Your task to perform on an android device: open app "Messages" (install if not already installed) Image 0: 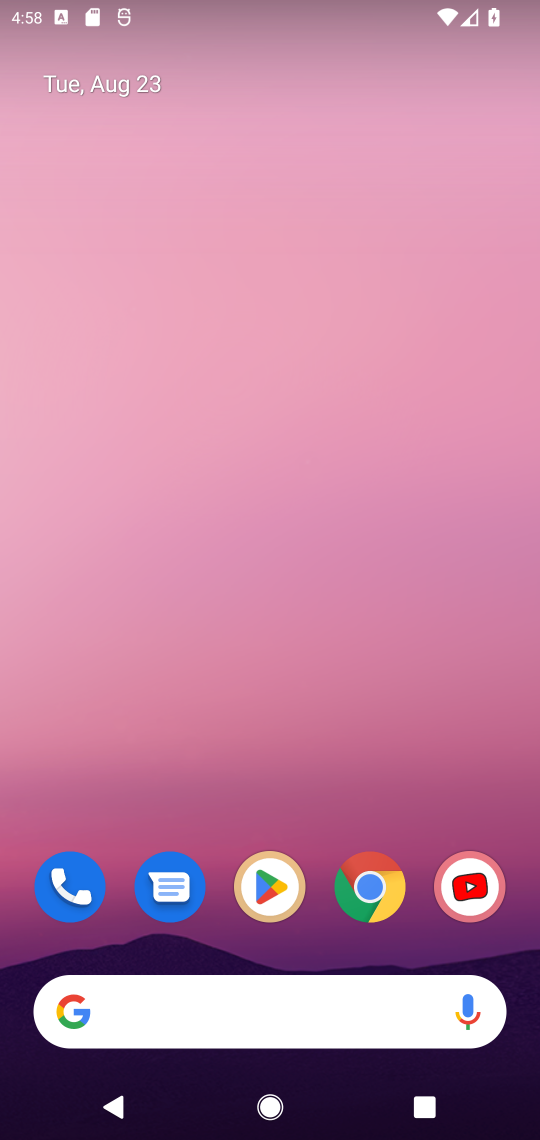
Step 0: click (268, 893)
Your task to perform on an android device: open app "Messages" (install if not already installed) Image 1: 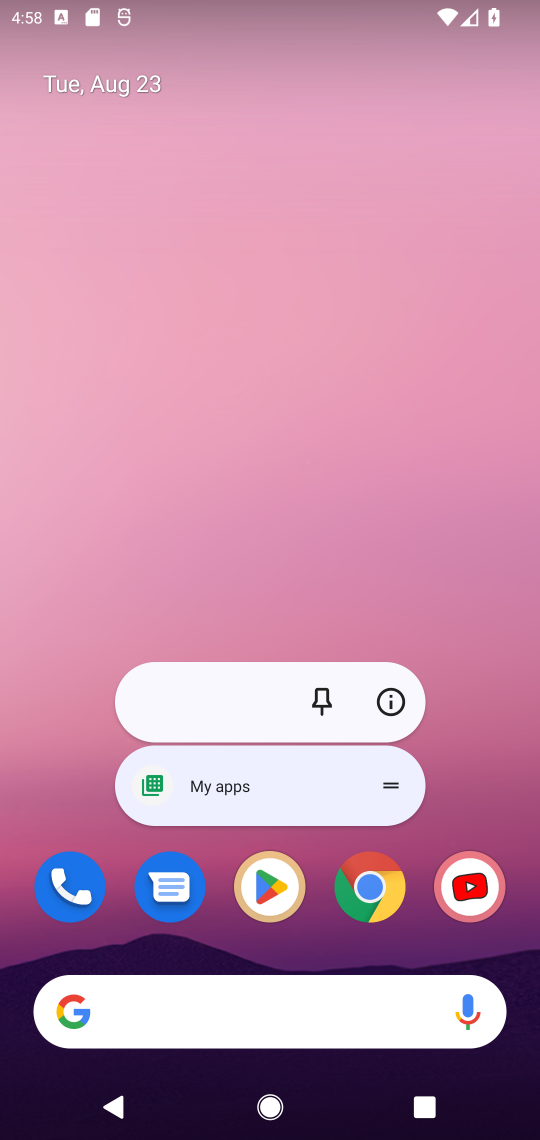
Step 1: click (252, 893)
Your task to perform on an android device: open app "Messages" (install if not already installed) Image 2: 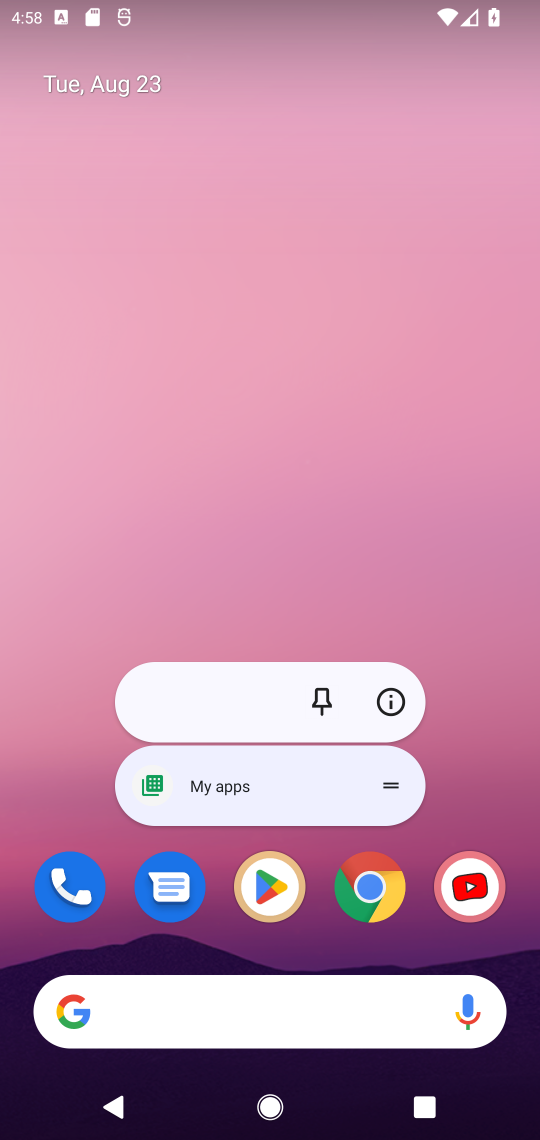
Step 2: click (271, 893)
Your task to perform on an android device: open app "Messages" (install if not already installed) Image 3: 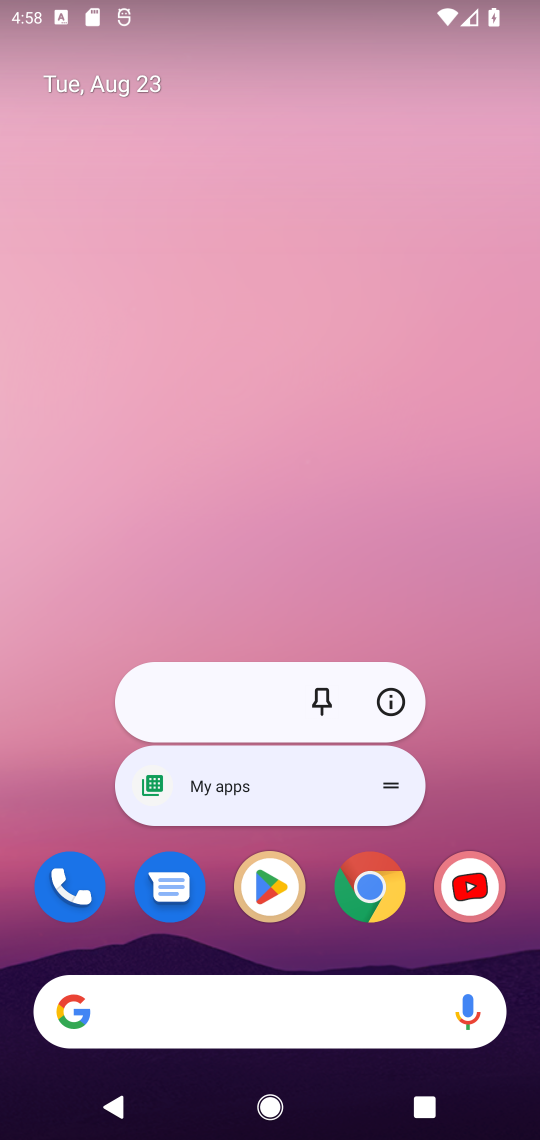
Step 3: click (276, 893)
Your task to perform on an android device: open app "Messages" (install if not already installed) Image 4: 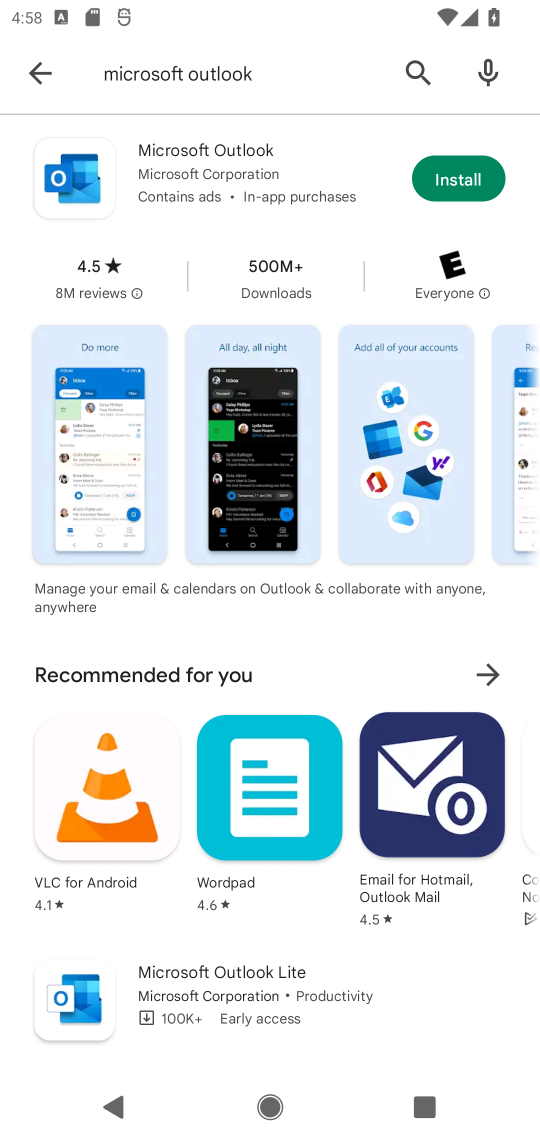
Step 4: click (35, 71)
Your task to perform on an android device: open app "Messages" (install if not already installed) Image 5: 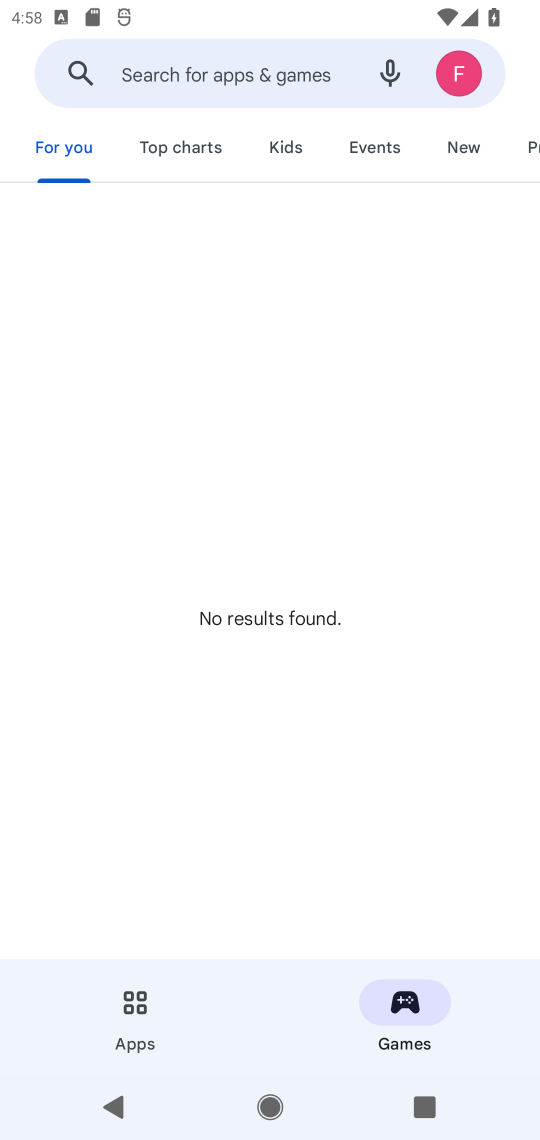
Step 5: click (189, 71)
Your task to perform on an android device: open app "Messages" (install if not already installed) Image 6: 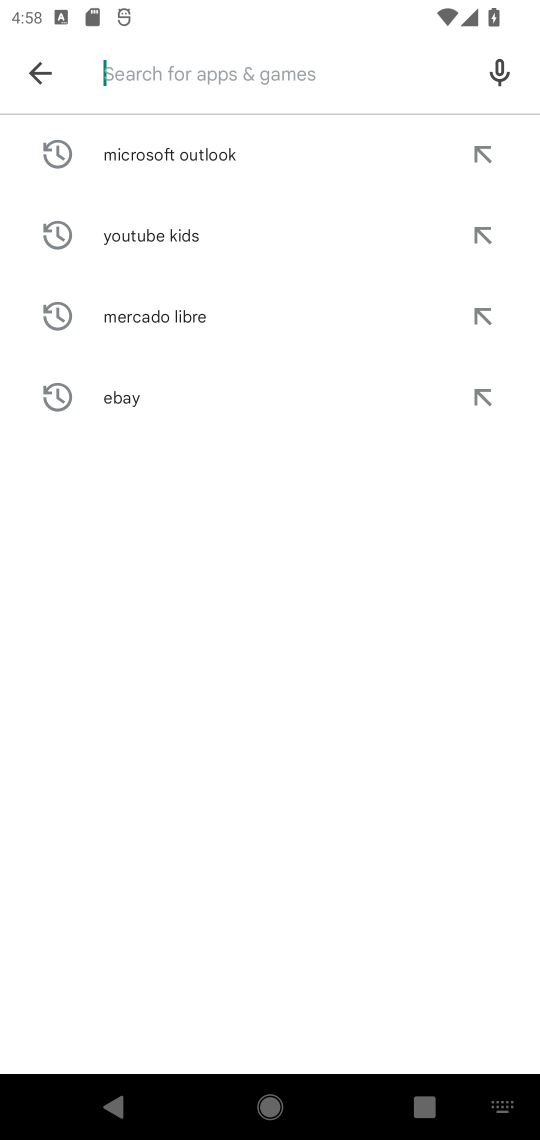
Step 6: type "Messages"
Your task to perform on an android device: open app "Messages" (install if not already installed) Image 7: 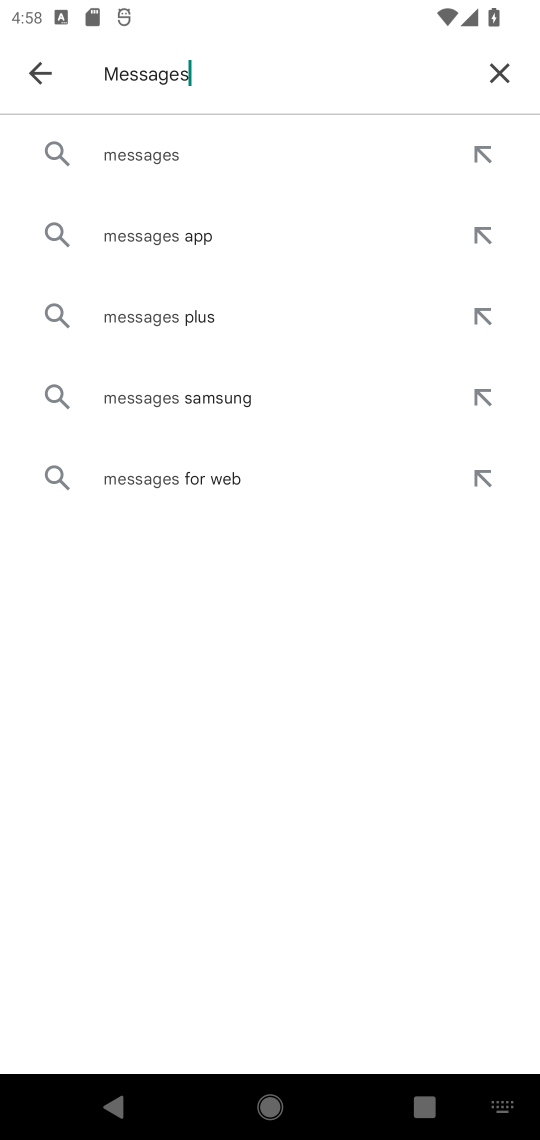
Step 7: click (137, 160)
Your task to perform on an android device: open app "Messages" (install if not already installed) Image 8: 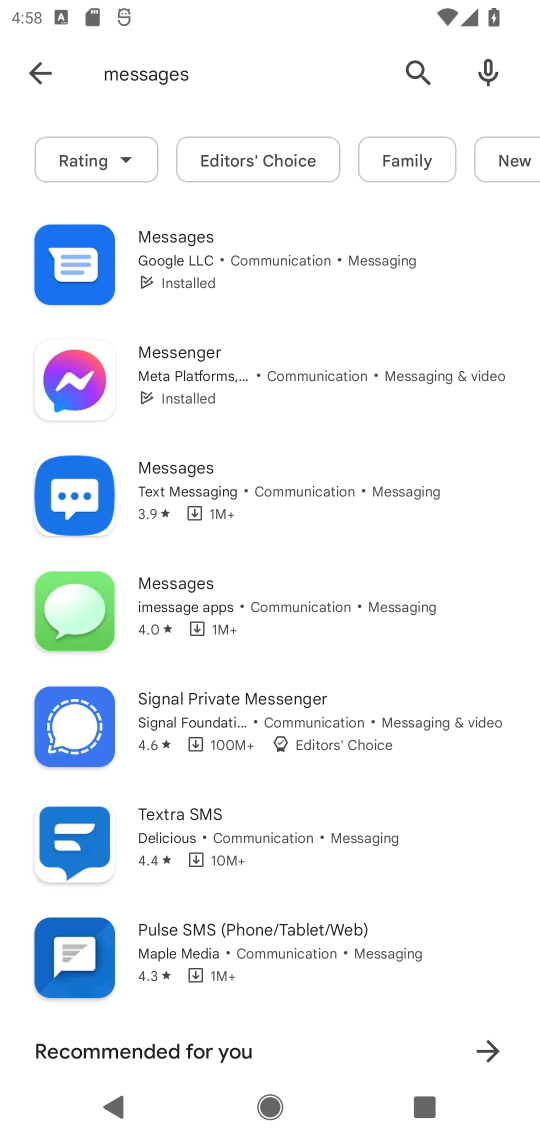
Step 8: click (164, 250)
Your task to perform on an android device: open app "Messages" (install if not already installed) Image 9: 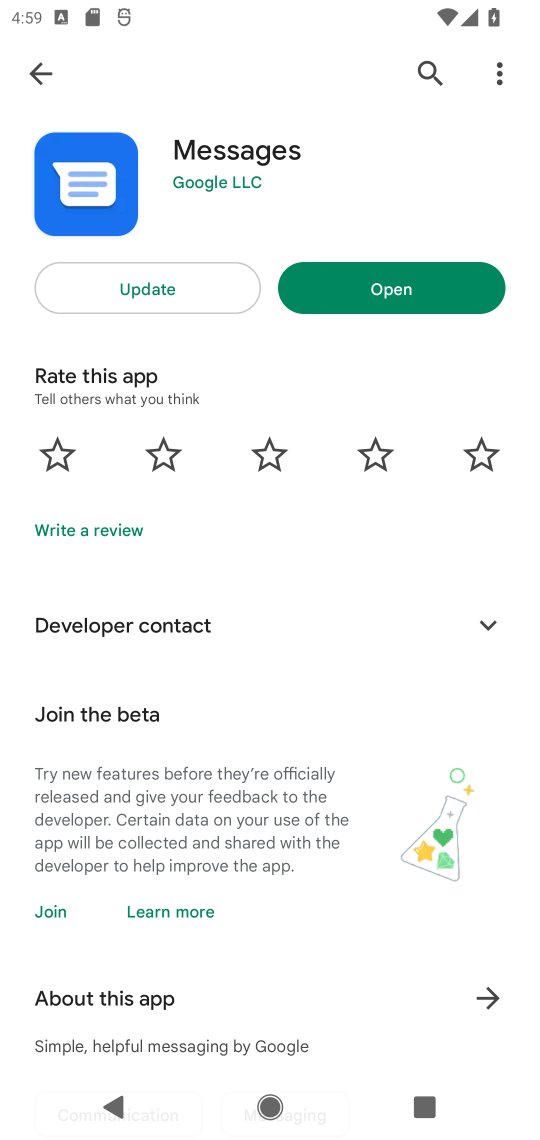
Step 9: click (348, 272)
Your task to perform on an android device: open app "Messages" (install if not already installed) Image 10: 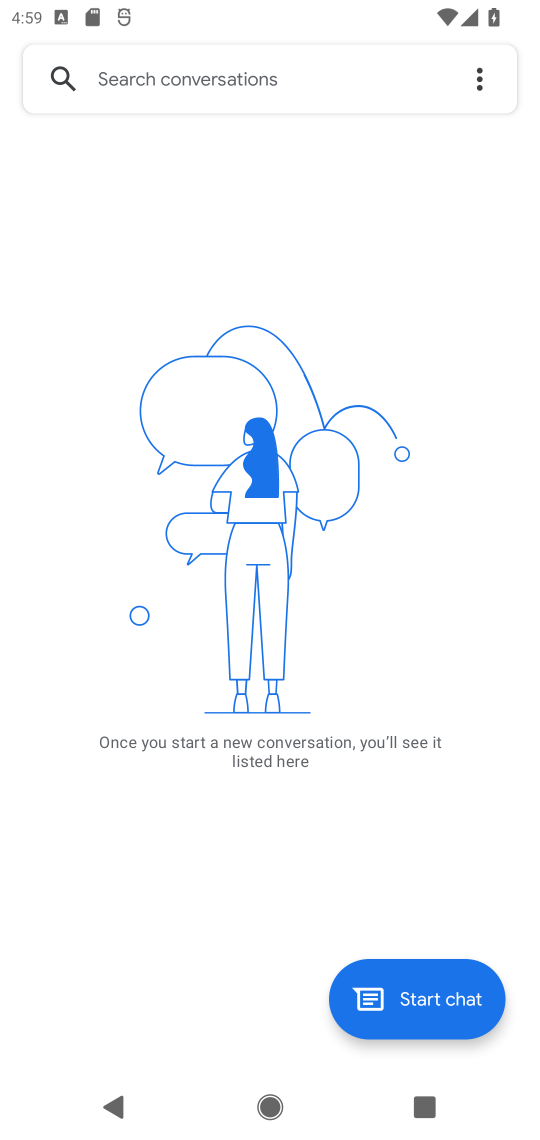
Step 10: task complete